Your task to perform on an android device: allow notifications from all sites in the chrome app Image 0: 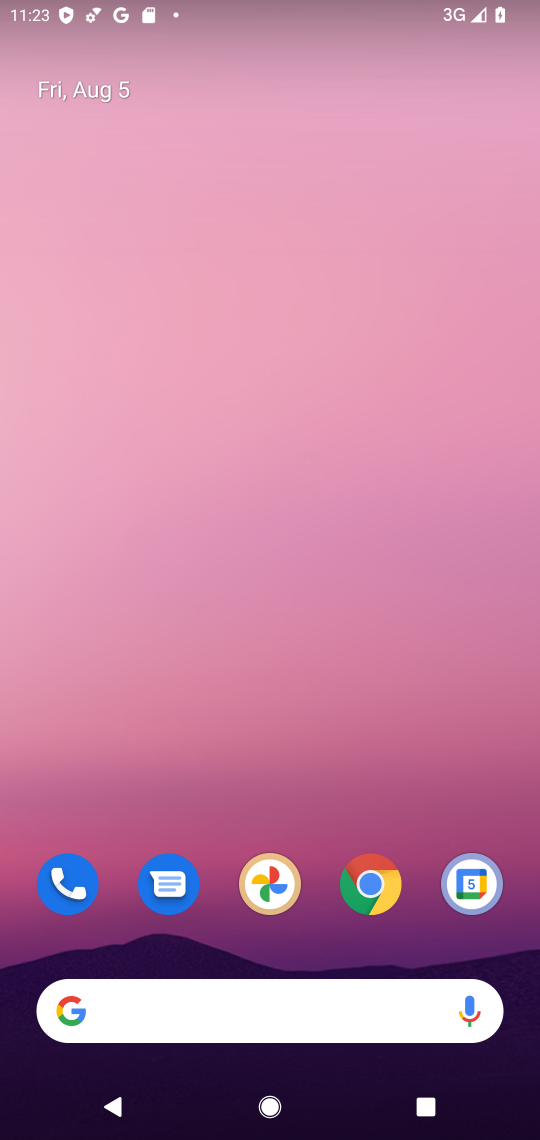
Step 0: click (363, 892)
Your task to perform on an android device: allow notifications from all sites in the chrome app Image 1: 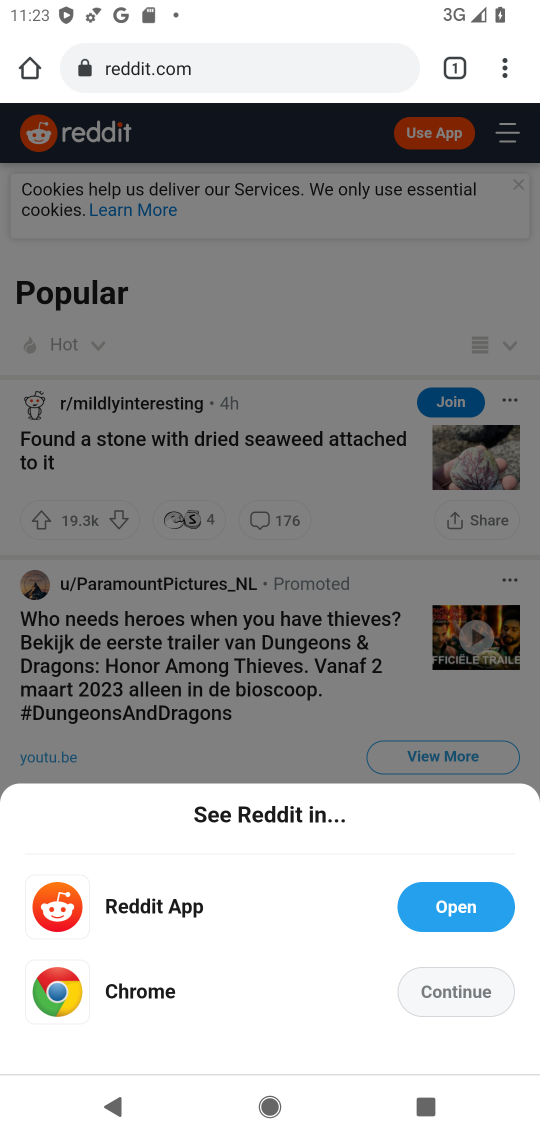
Step 1: click (506, 61)
Your task to perform on an android device: allow notifications from all sites in the chrome app Image 2: 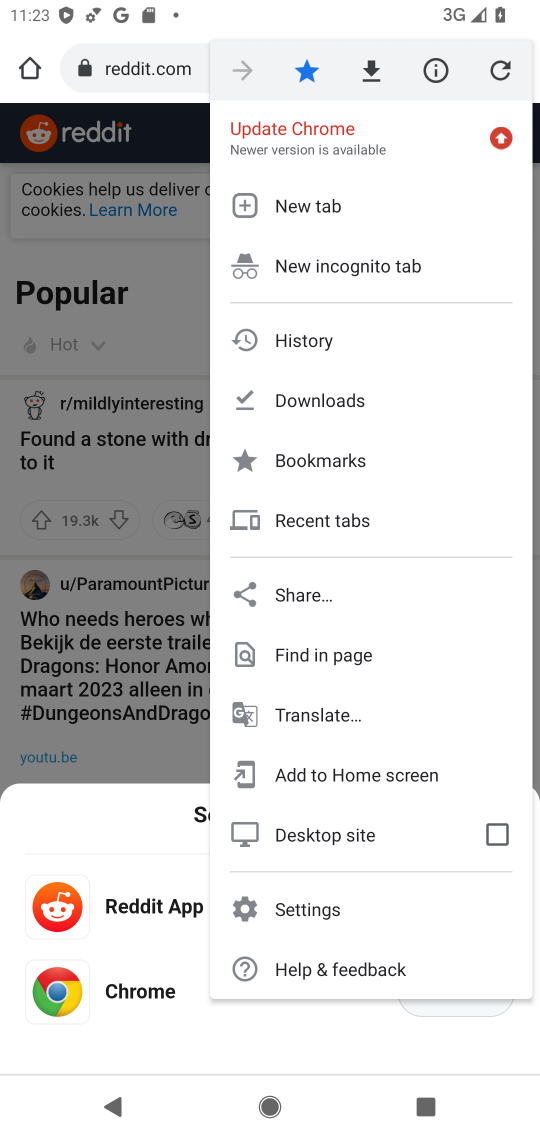
Step 2: click (339, 905)
Your task to perform on an android device: allow notifications from all sites in the chrome app Image 3: 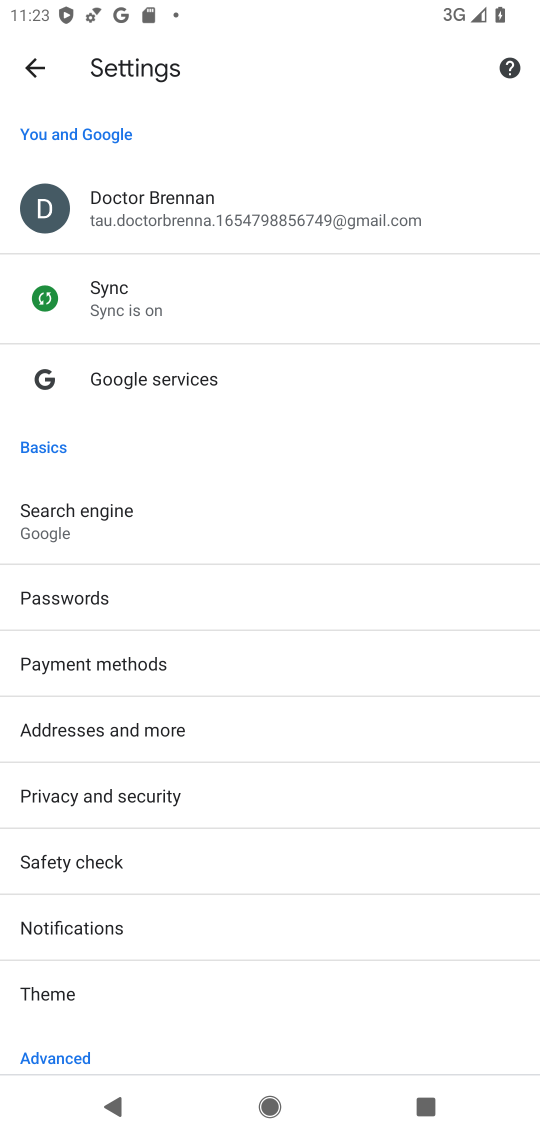
Step 3: click (276, 908)
Your task to perform on an android device: allow notifications from all sites in the chrome app Image 4: 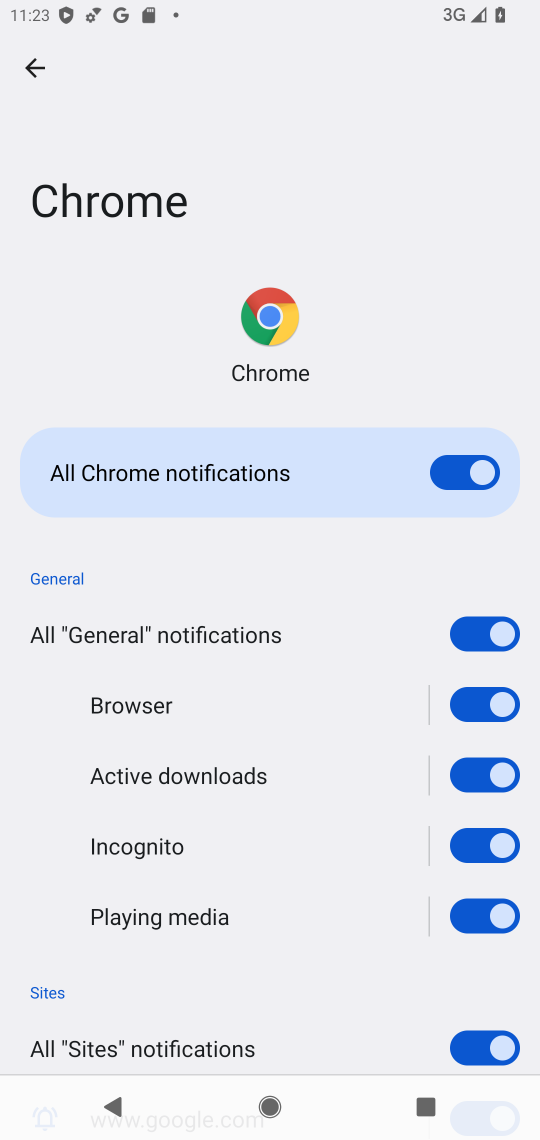
Step 4: task complete